Your task to perform on an android device: delete the emails in spam in the gmail app Image 0: 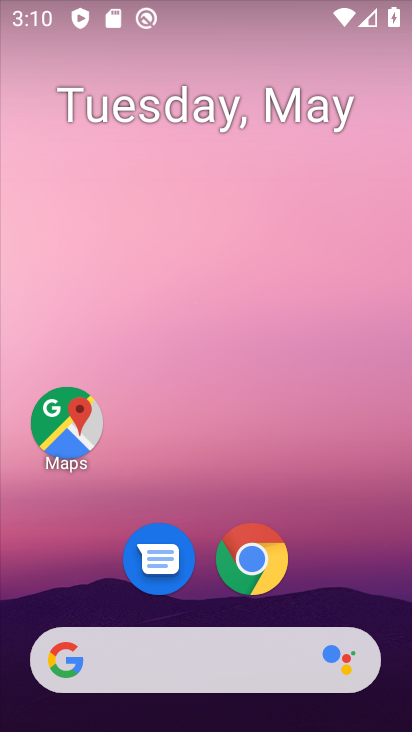
Step 0: drag from (332, 567) to (251, 112)
Your task to perform on an android device: delete the emails in spam in the gmail app Image 1: 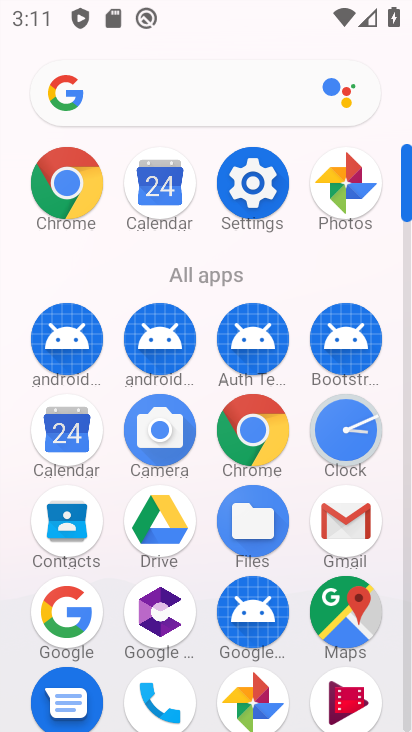
Step 1: click (345, 522)
Your task to perform on an android device: delete the emails in spam in the gmail app Image 2: 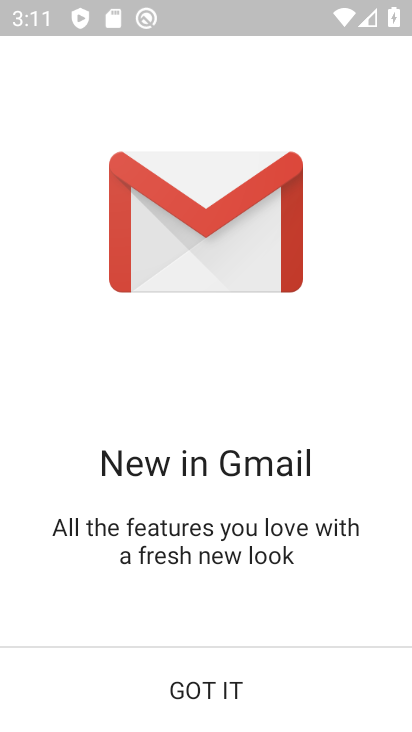
Step 2: click (207, 687)
Your task to perform on an android device: delete the emails in spam in the gmail app Image 3: 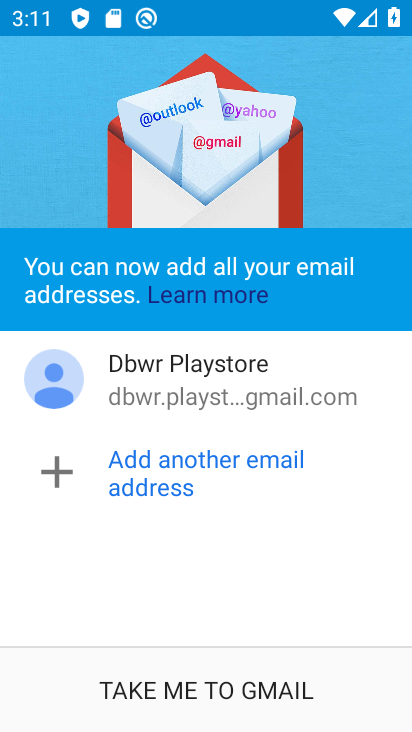
Step 3: click (207, 687)
Your task to perform on an android device: delete the emails in spam in the gmail app Image 4: 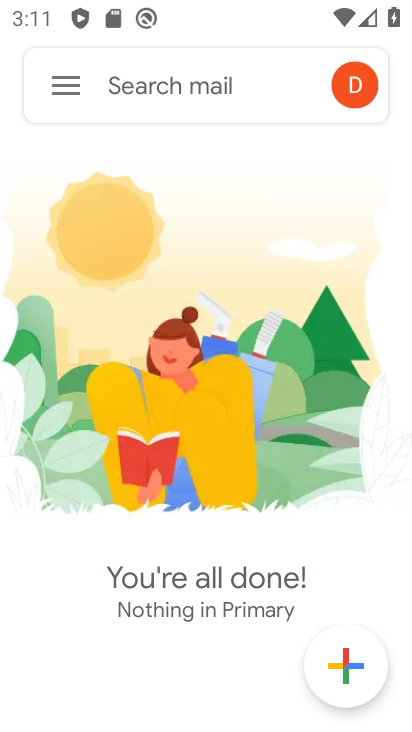
Step 4: click (61, 87)
Your task to perform on an android device: delete the emails in spam in the gmail app Image 5: 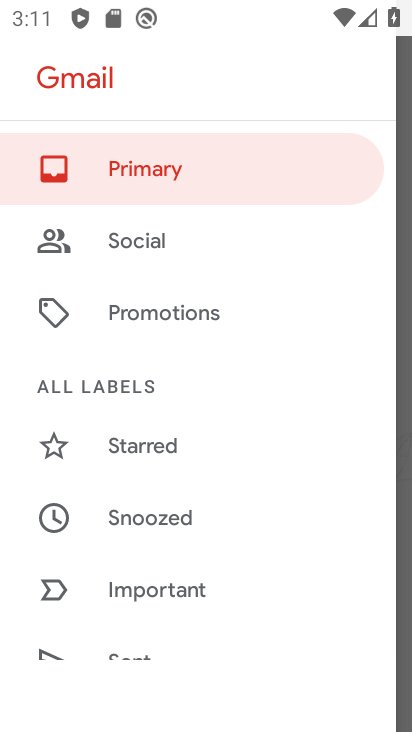
Step 5: drag from (136, 477) to (193, 366)
Your task to perform on an android device: delete the emails in spam in the gmail app Image 6: 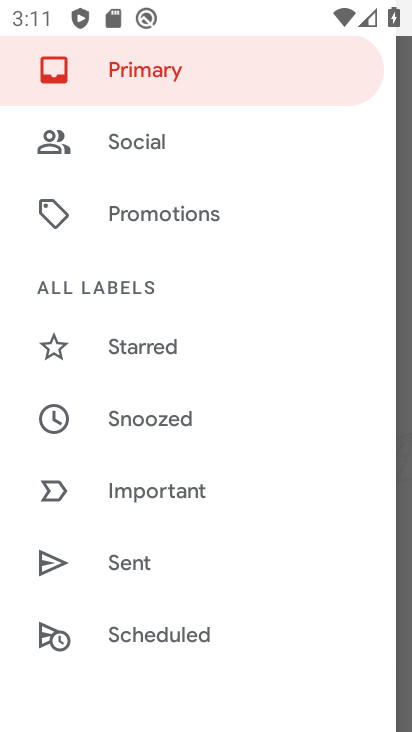
Step 6: drag from (128, 519) to (168, 399)
Your task to perform on an android device: delete the emails in spam in the gmail app Image 7: 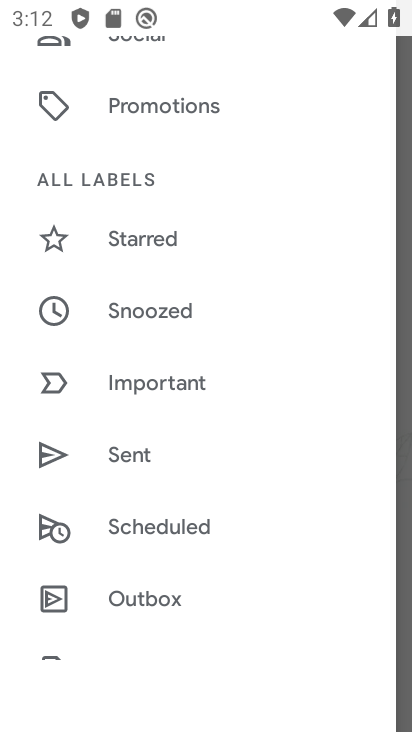
Step 7: drag from (118, 491) to (180, 370)
Your task to perform on an android device: delete the emails in spam in the gmail app Image 8: 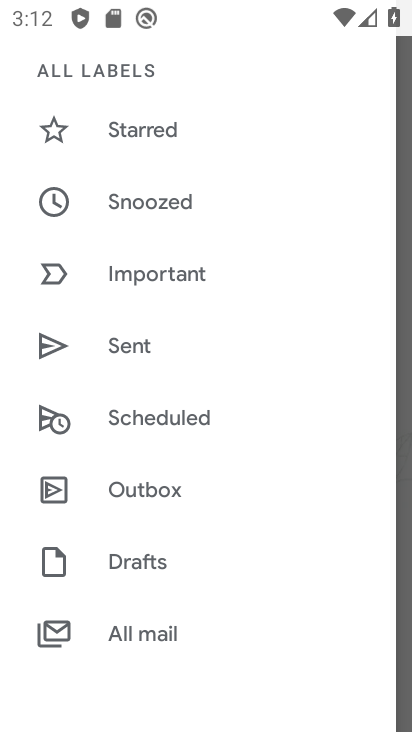
Step 8: drag from (136, 471) to (196, 357)
Your task to perform on an android device: delete the emails in spam in the gmail app Image 9: 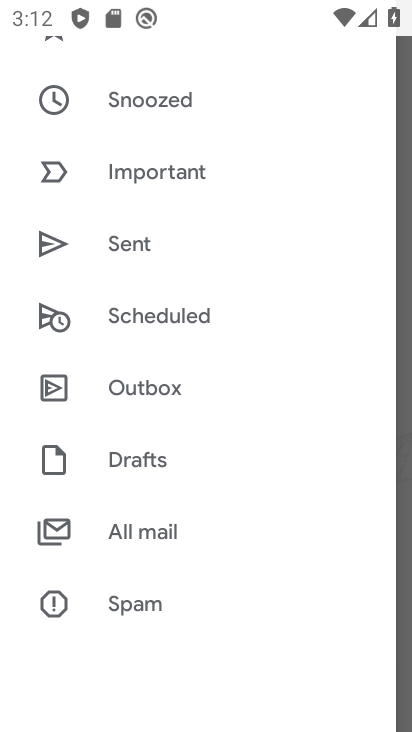
Step 9: drag from (134, 489) to (200, 394)
Your task to perform on an android device: delete the emails in spam in the gmail app Image 10: 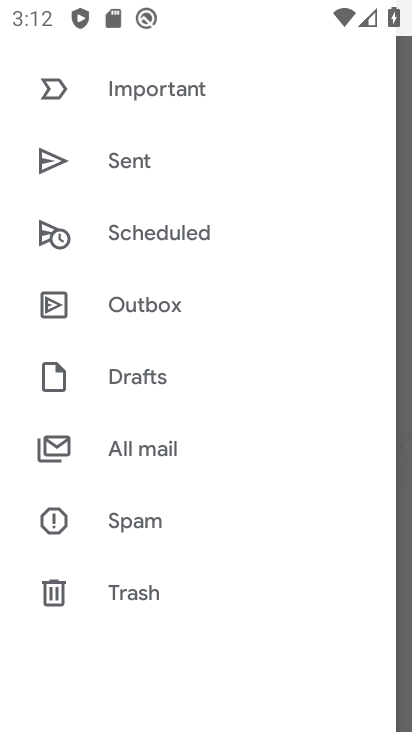
Step 10: click (164, 519)
Your task to perform on an android device: delete the emails in spam in the gmail app Image 11: 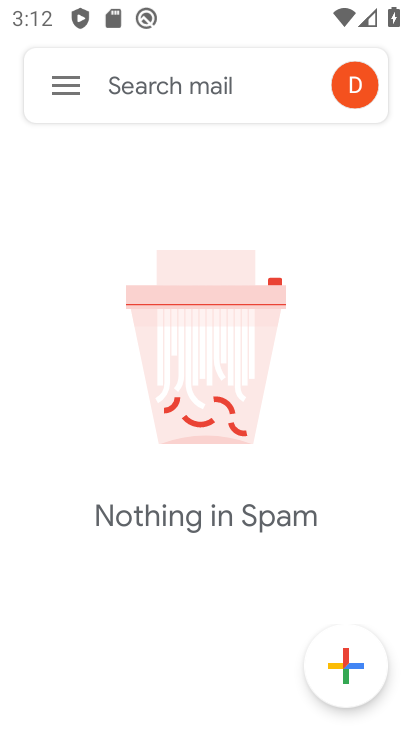
Step 11: task complete